Your task to perform on an android device: open chrome and create a bookmark for the current page Image 0: 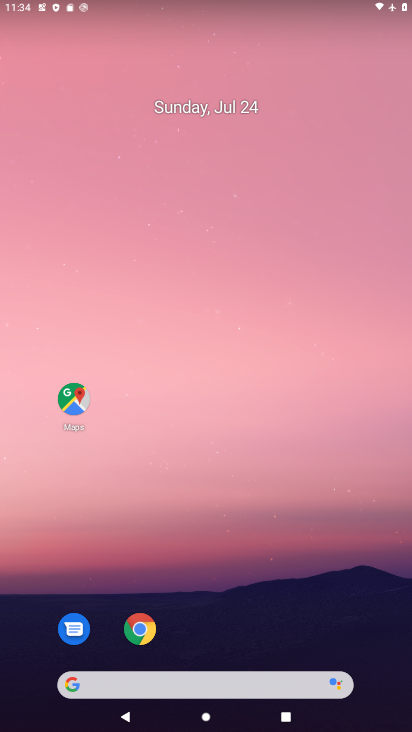
Step 0: click (150, 645)
Your task to perform on an android device: open chrome and create a bookmark for the current page Image 1: 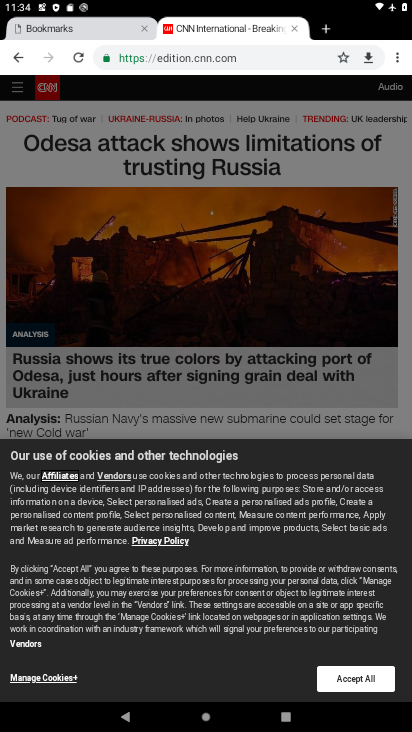
Step 1: click (332, 52)
Your task to perform on an android device: open chrome and create a bookmark for the current page Image 2: 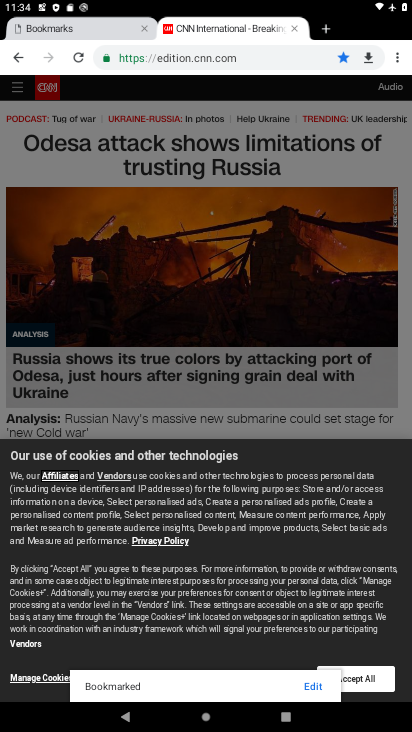
Step 2: task complete